Your task to perform on an android device: Check the weather Image 0: 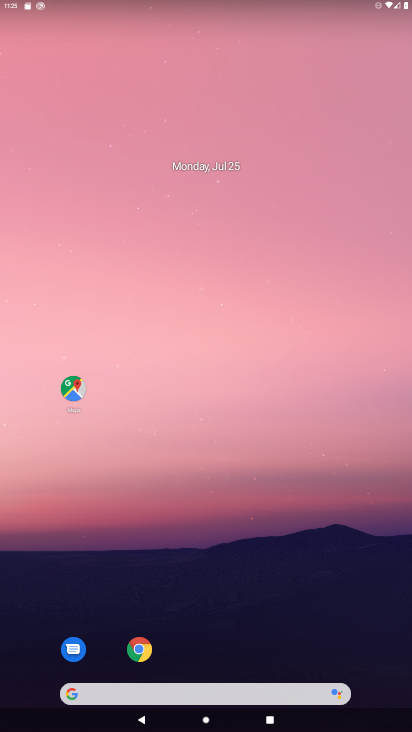
Step 0: drag from (4, 285) to (381, 304)
Your task to perform on an android device: Check the weather Image 1: 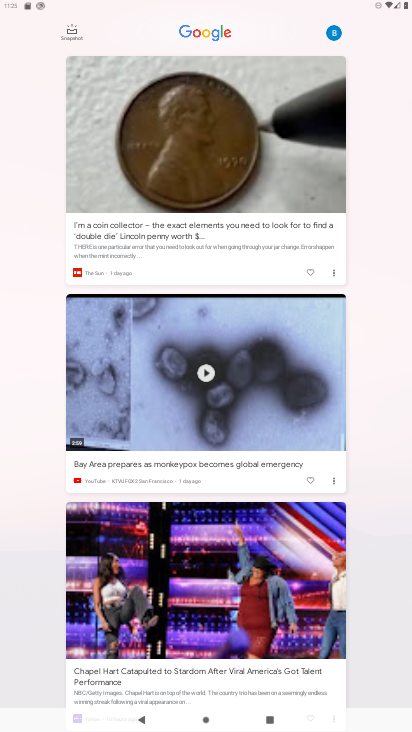
Step 1: drag from (172, 204) to (174, 474)
Your task to perform on an android device: Check the weather Image 2: 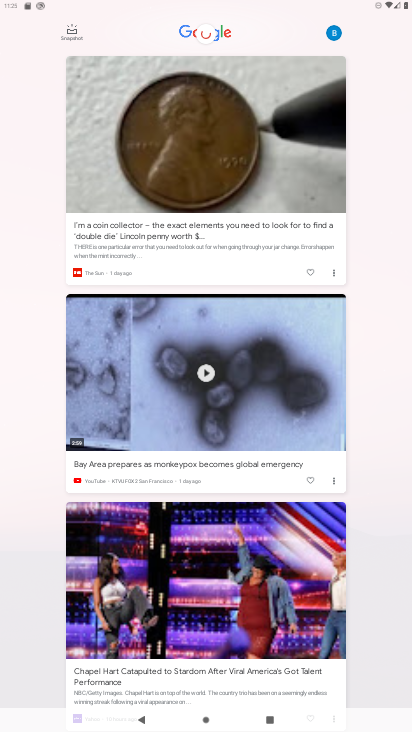
Step 2: drag from (325, 432) to (47, 435)
Your task to perform on an android device: Check the weather Image 3: 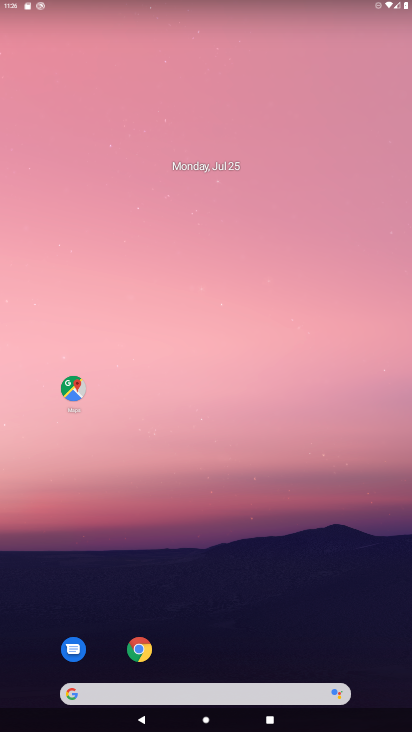
Step 3: click (132, 699)
Your task to perform on an android device: Check the weather Image 4: 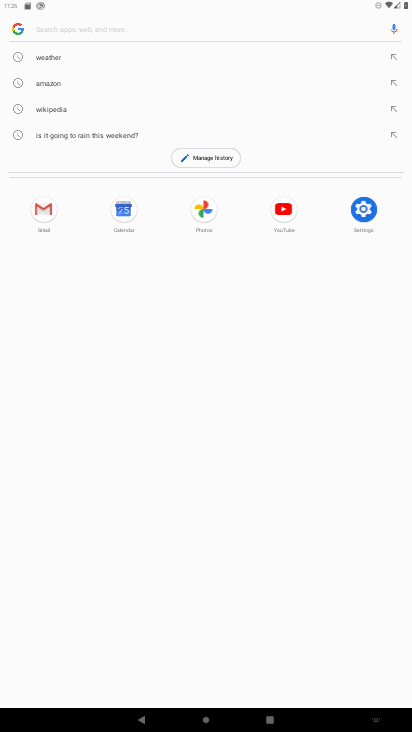
Step 4: click (50, 58)
Your task to perform on an android device: Check the weather Image 5: 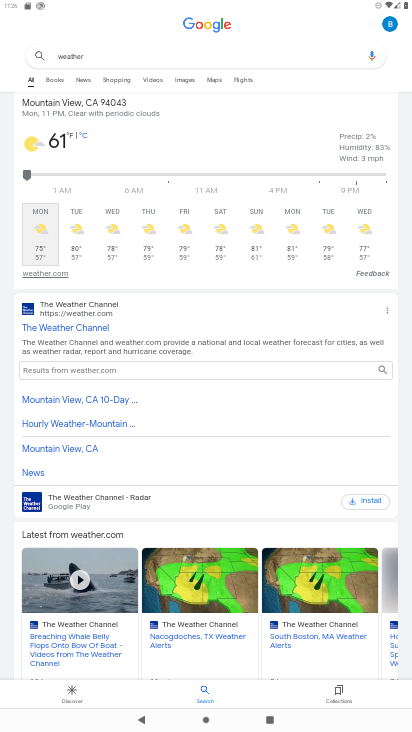
Step 5: task complete